Your task to perform on an android device: Go to internet settings Image 0: 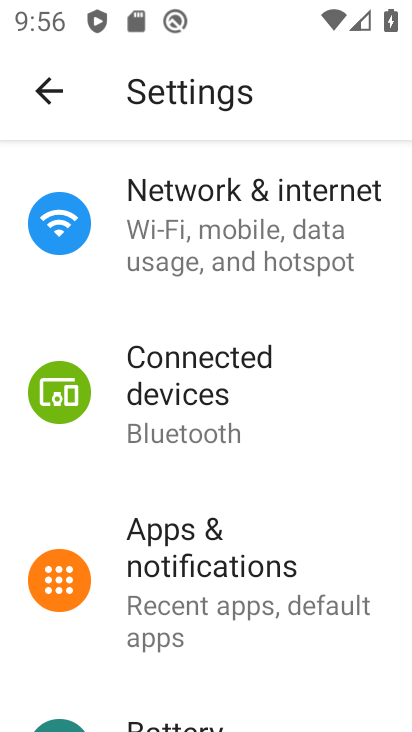
Step 0: press home button
Your task to perform on an android device: Go to internet settings Image 1: 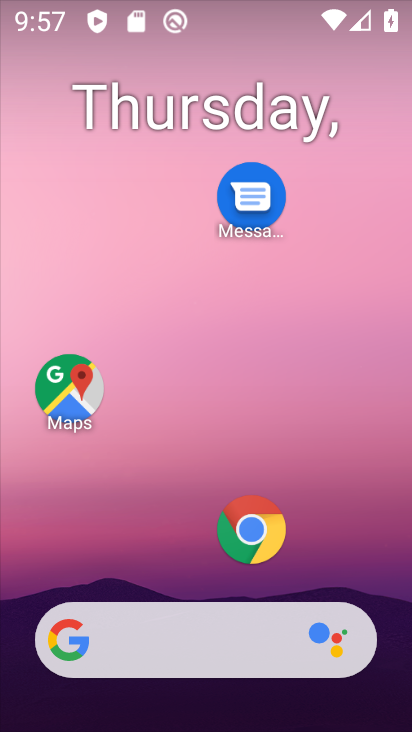
Step 1: drag from (158, 552) to (200, 6)
Your task to perform on an android device: Go to internet settings Image 2: 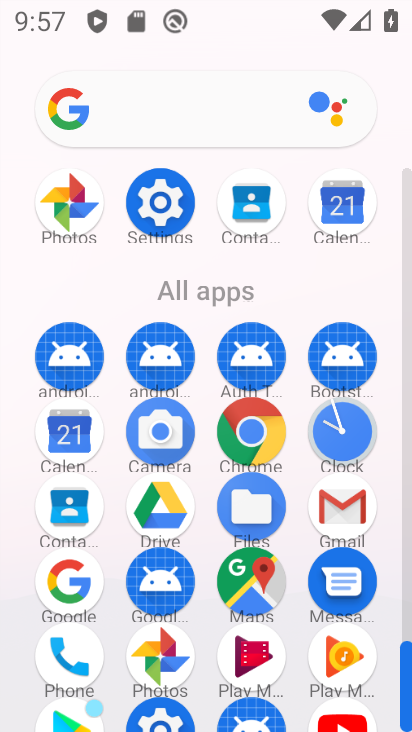
Step 2: click (161, 200)
Your task to perform on an android device: Go to internet settings Image 3: 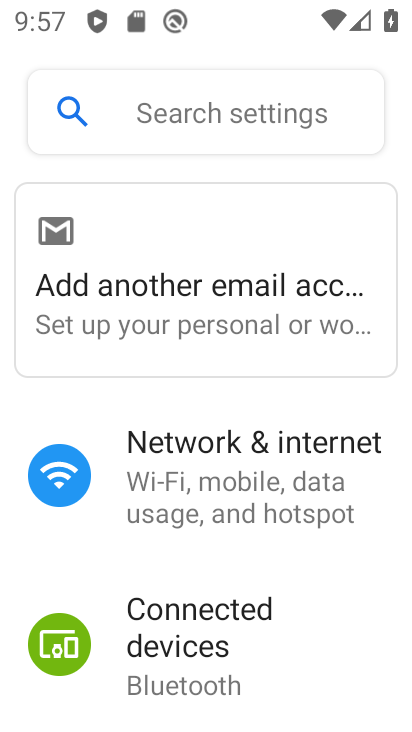
Step 3: click (177, 442)
Your task to perform on an android device: Go to internet settings Image 4: 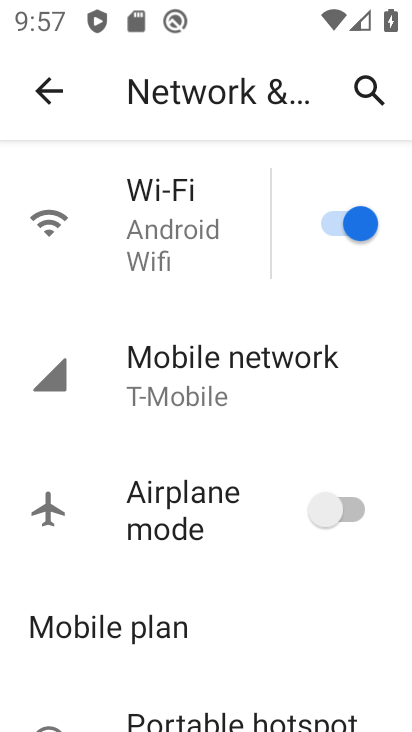
Step 4: task complete